Your task to perform on an android device: Play the last video I watched on Youtube Image 0: 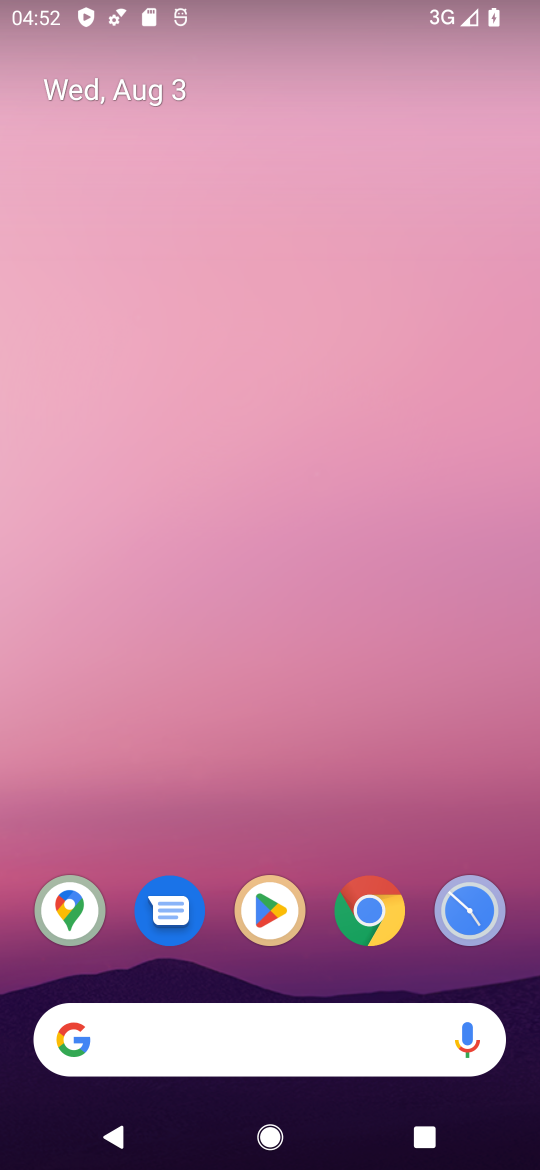
Step 0: drag from (309, 791) to (339, 72)
Your task to perform on an android device: Play the last video I watched on Youtube Image 1: 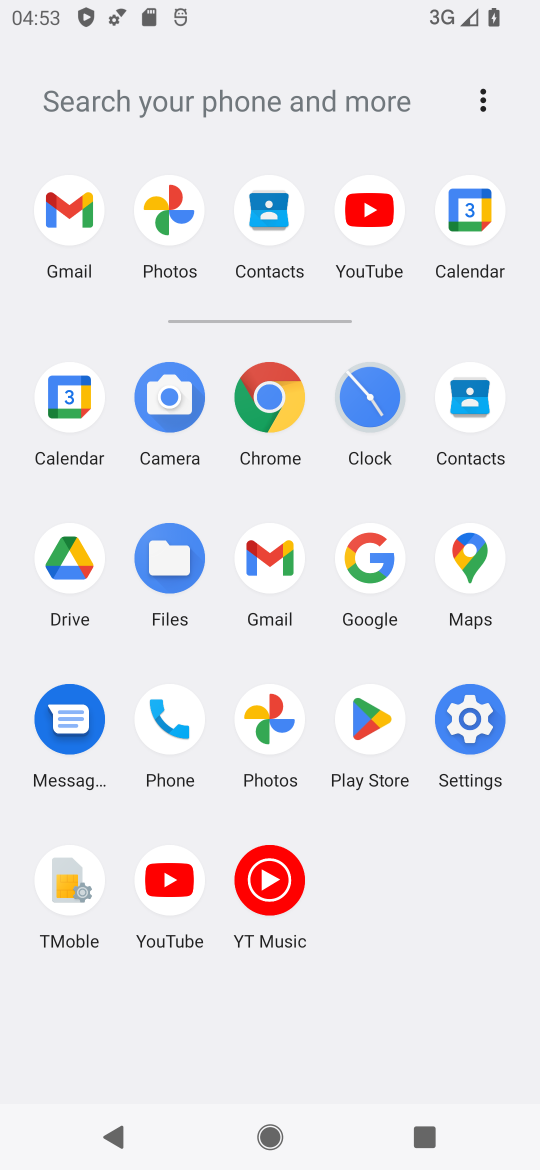
Step 1: click (162, 862)
Your task to perform on an android device: Play the last video I watched on Youtube Image 2: 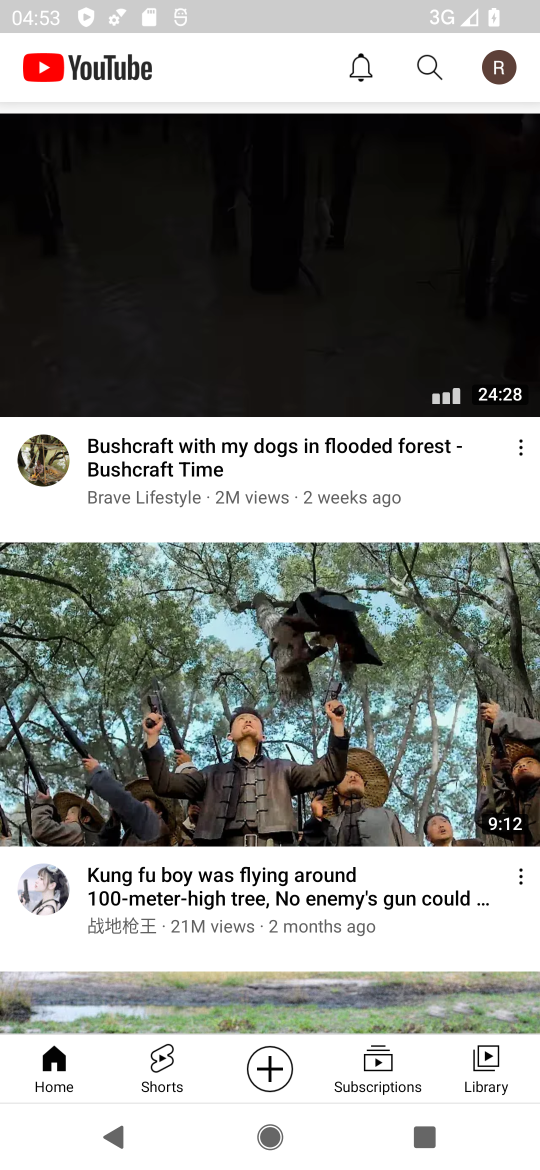
Step 2: click (485, 1056)
Your task to perform on an android device: Play the last video I watched on Youtube Image 3: 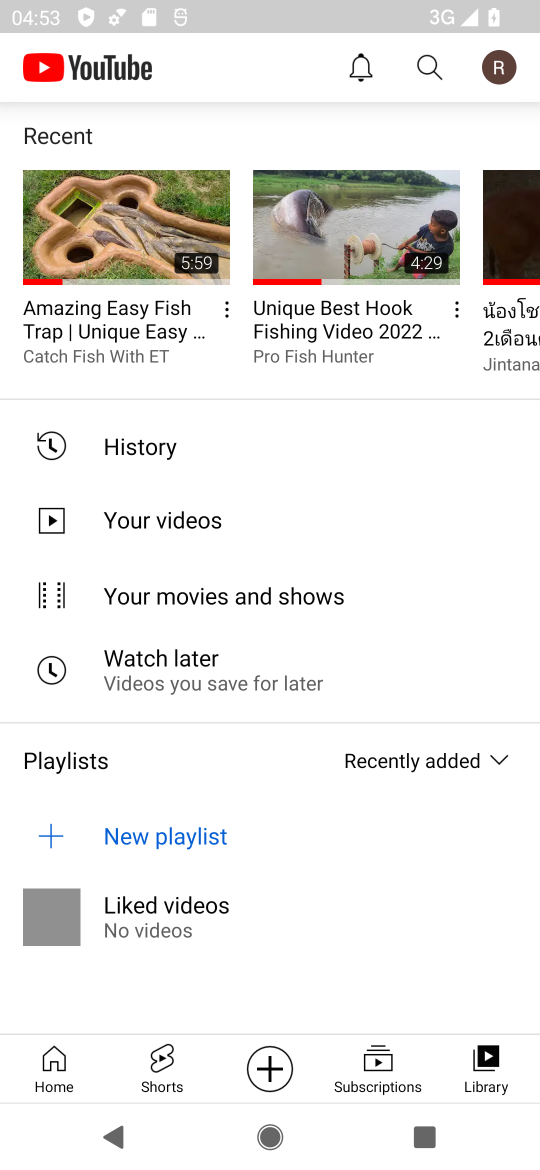
Step 3: click (90, 231)
Your task to perform on an android device: Play the last video I watched on Youtube Image 4: 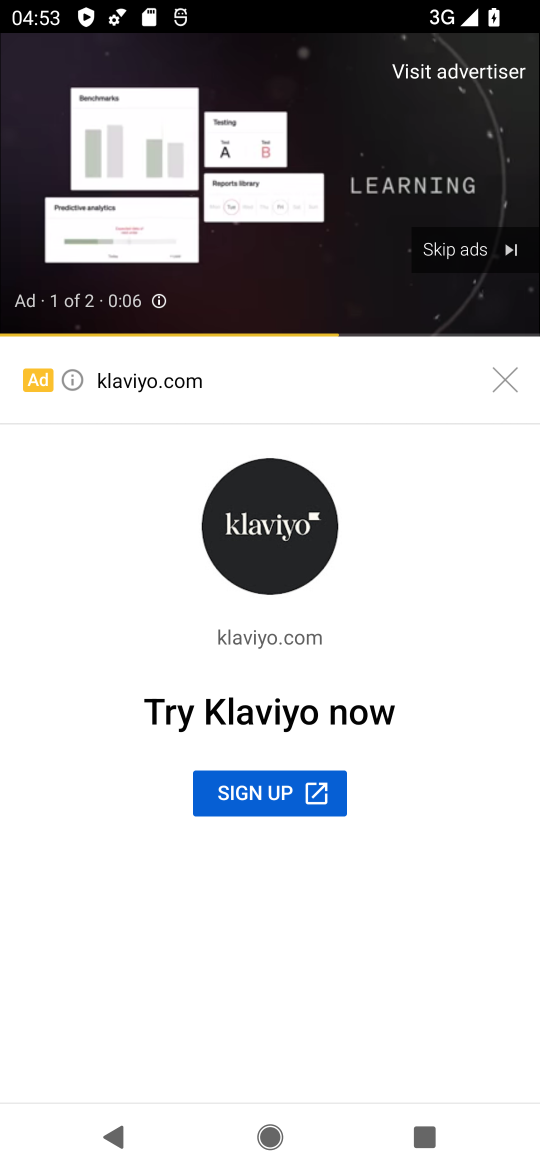
Step 4: click (457, 265)
Your task to perform on an android device: Play the last video I watched on Youtube Image 5: 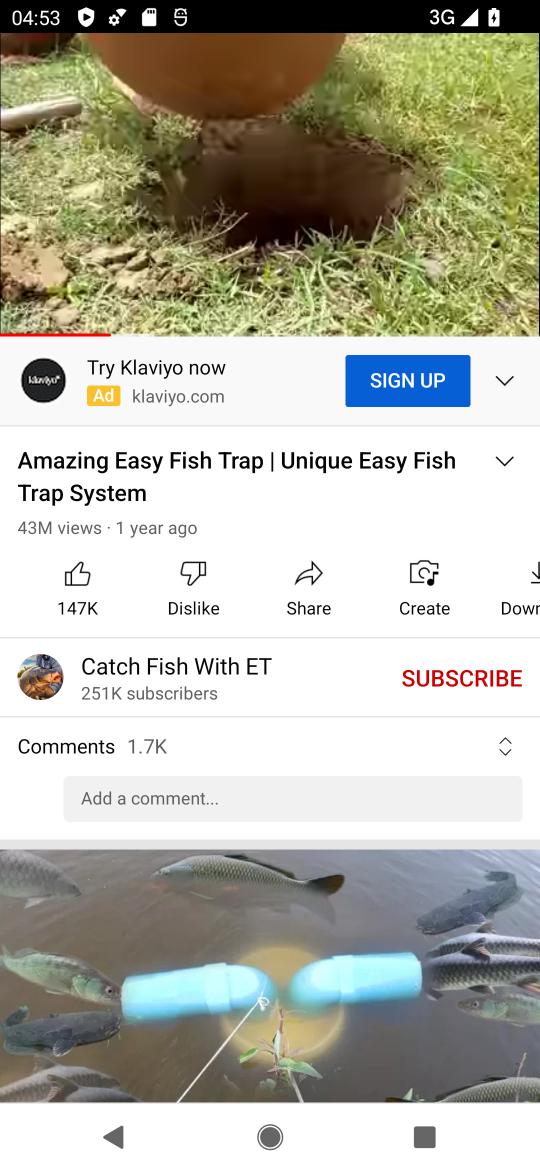
Step 5: task complete